Your task to perform on an android device: turn on showing notifications on the lock screen Image 0: 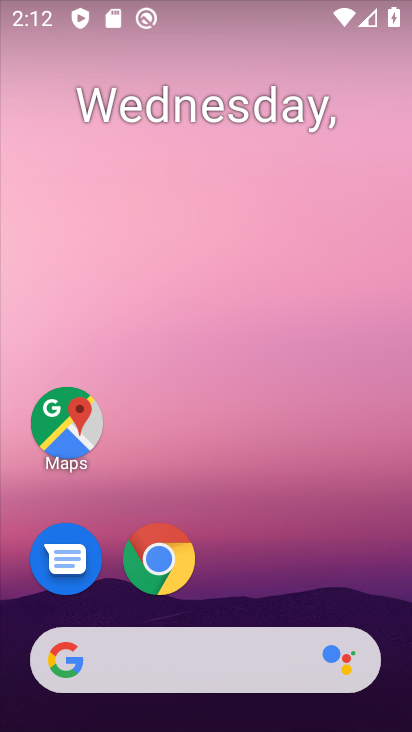
Step 0: drag from (258, 335) to (257, 7)
Your task to perform on an android device: turn on showing notifications on the lock screen Image 1: 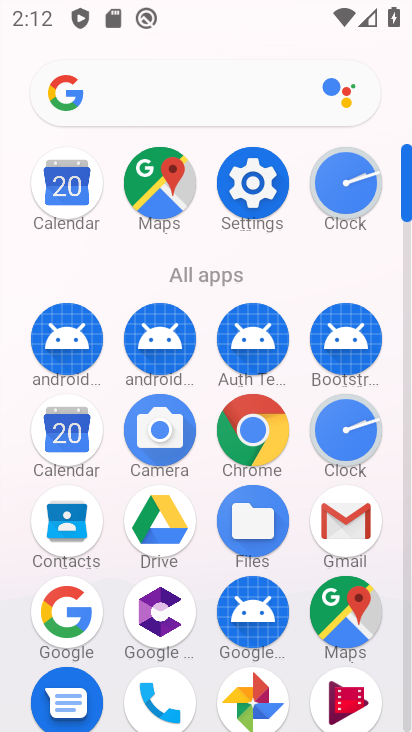
Step 1: click (259, 179)
Your task to perform on an android device: turn on showing notifications on the lock screen Image 2: 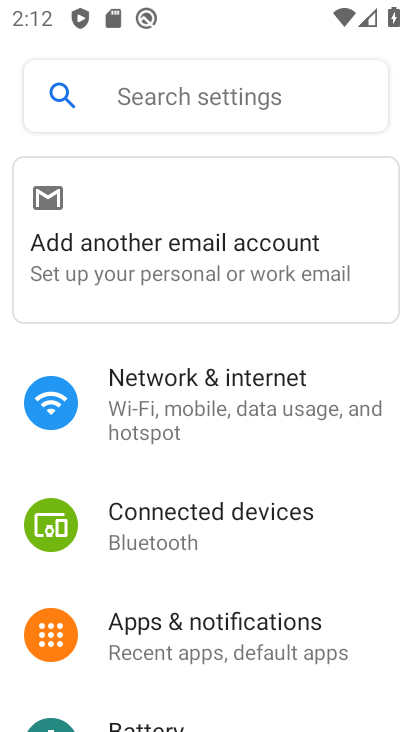
Step 2: click (160, 633)
Your task to perform on an android device: turn on showing notifications on the lock screen Image 3: 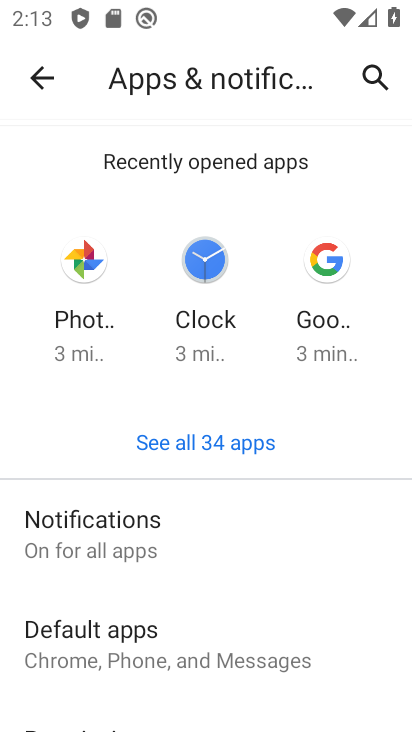
Step 3: click (177, 524)
Your task to perform on an android device: turn on showing notifications on the lock screen Image 4: 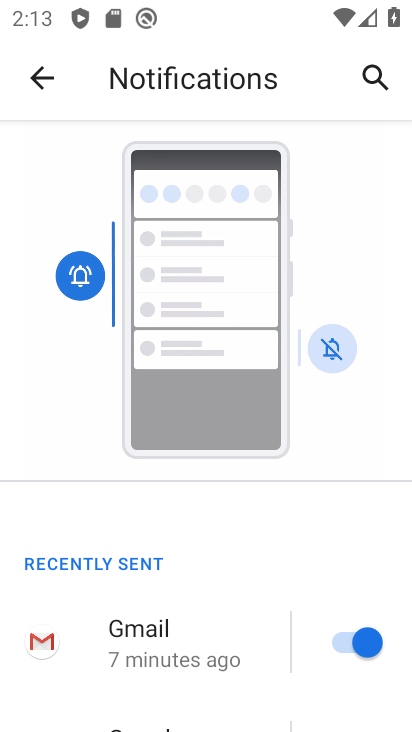
Step 4: drag from (180, 657) to (248, 80)
Your task to perform on an android device: turn on showing notifications on the lock screen Image 5: 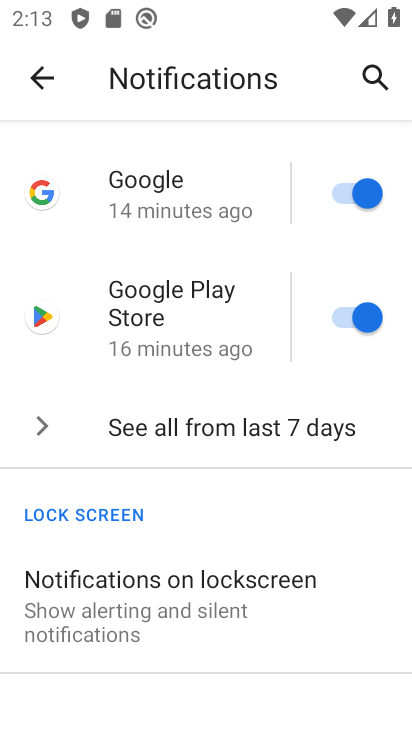
Step 5: click (225, 607)
Your task to perform on an android device: turn on showing notifications on the lock screen Image 6: 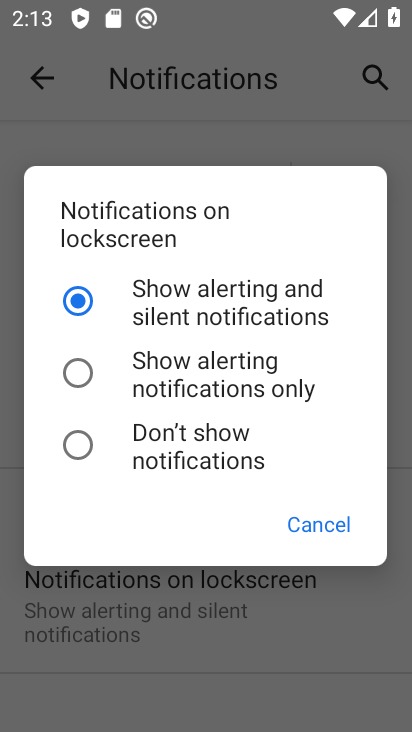
Step 6: click (99, 293)
Your task to perform on an android device: turn on showing notifications on the lock screen Image 7: 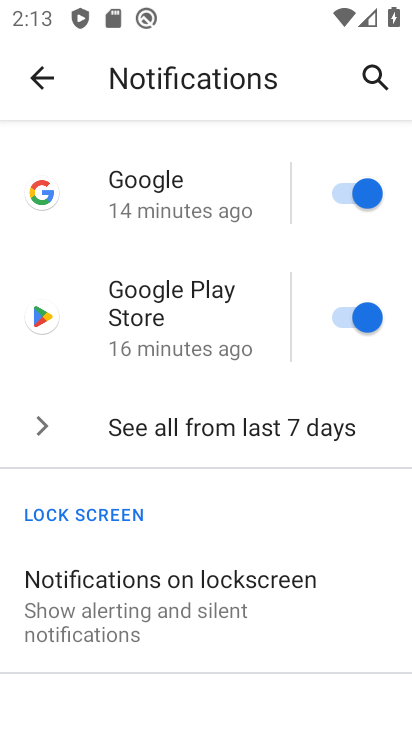
Step 7: task complete